Your task to perform on an android device: turn off location history Image 0: 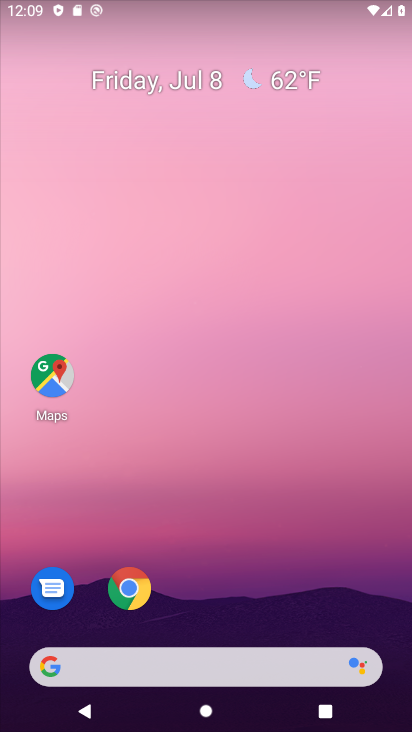
Step 0: drag from (224, 159) to (212, 120)
Your task to perform on an android device: turn off location history Image 1: 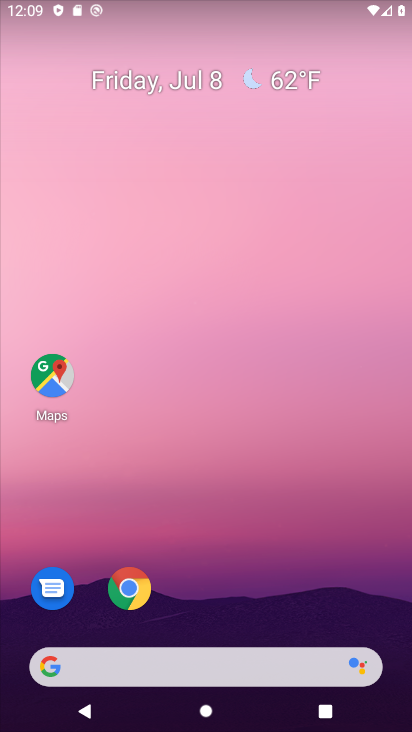
Step 1: click (214, 46)
Your task to perform on an android device: turn off location history Image 2: 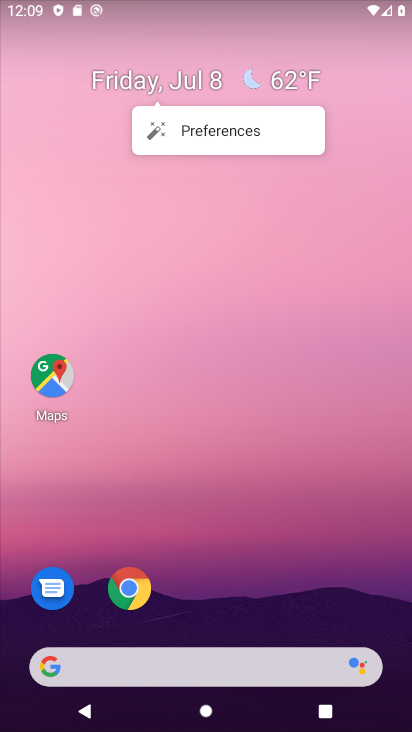
Step 2: drag from (195, 246) to (195, 97)
Your task to perform on an android device: turn off location history Image 3: 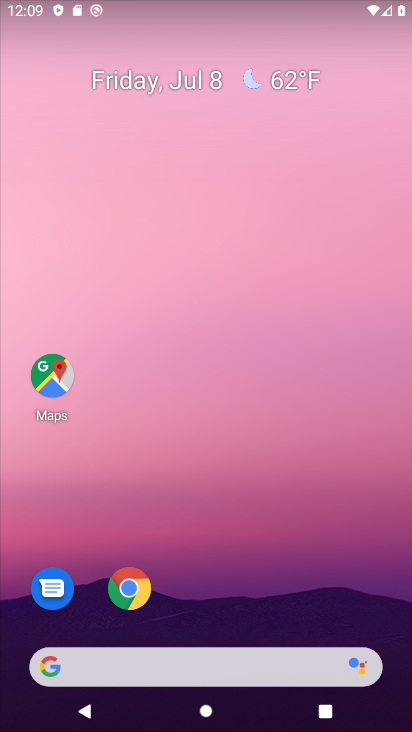
Step 3: drag from (236, 19) to (37, 81)
Your task to perform on an android device: turn off location history Image 4: 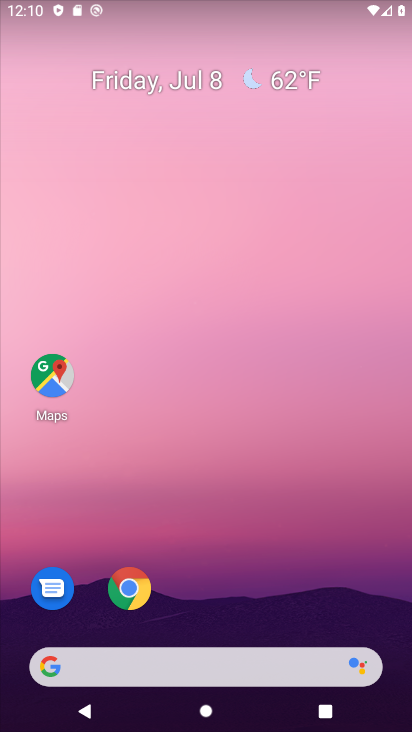
Step 4: drag from (248, 613) to (186, 116)
Your task to perform on an android device: turn off location history Image 5: 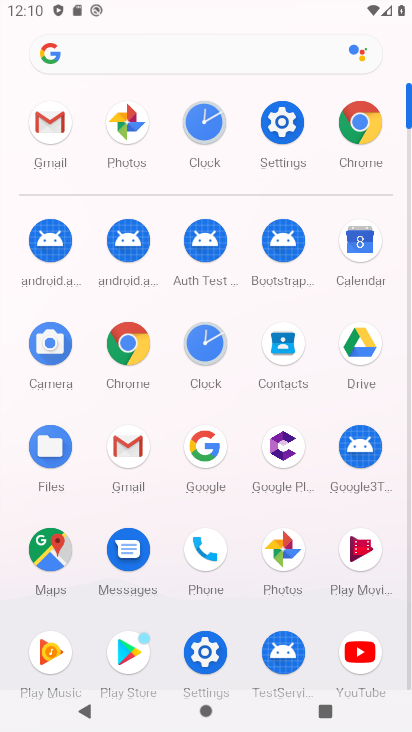
Step 5: click (281, 173)
Your task to perform on an android device: turn off location history Image 6: 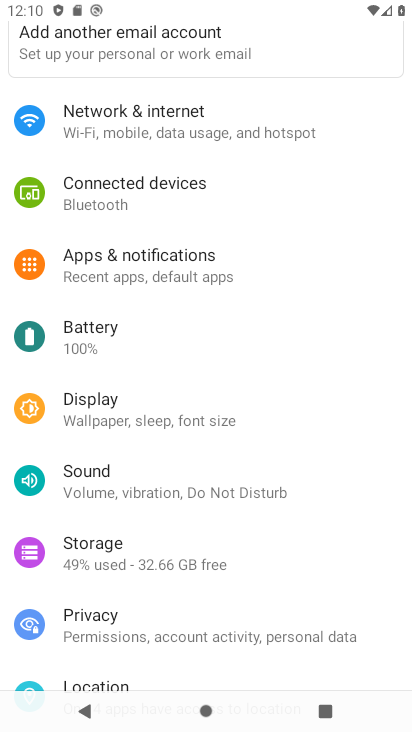
Step 6: click (122, 684)
Your task to perform on an android device: turn off location history Image 7: 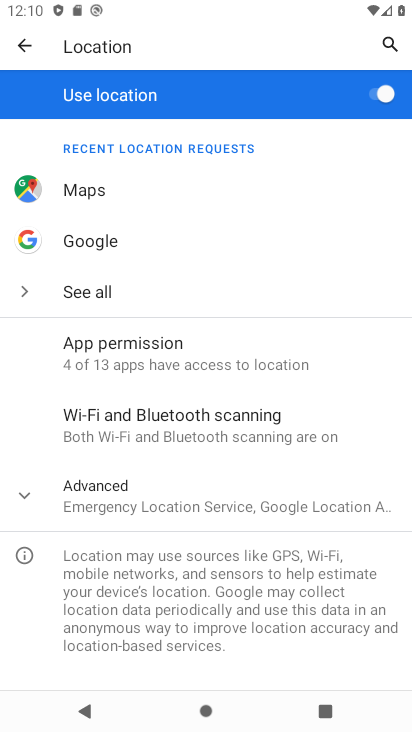
Step 7: click (213, 501)
Your task to perform on an android device: turn off location history Image 8: 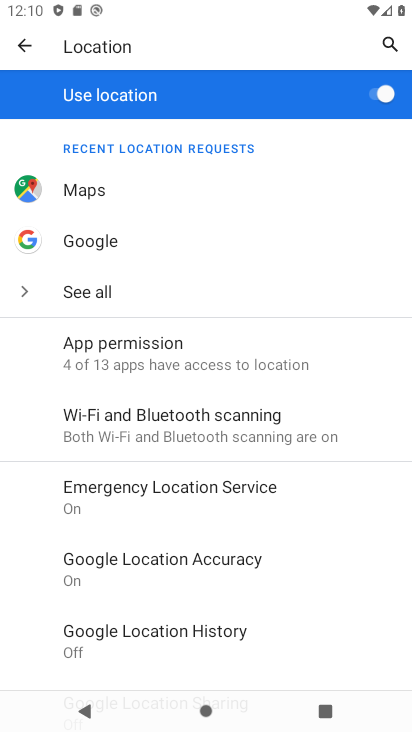
Step 8: task complete